Your task to perform on an android device: turn on the 24-hour format for clock Image 0: 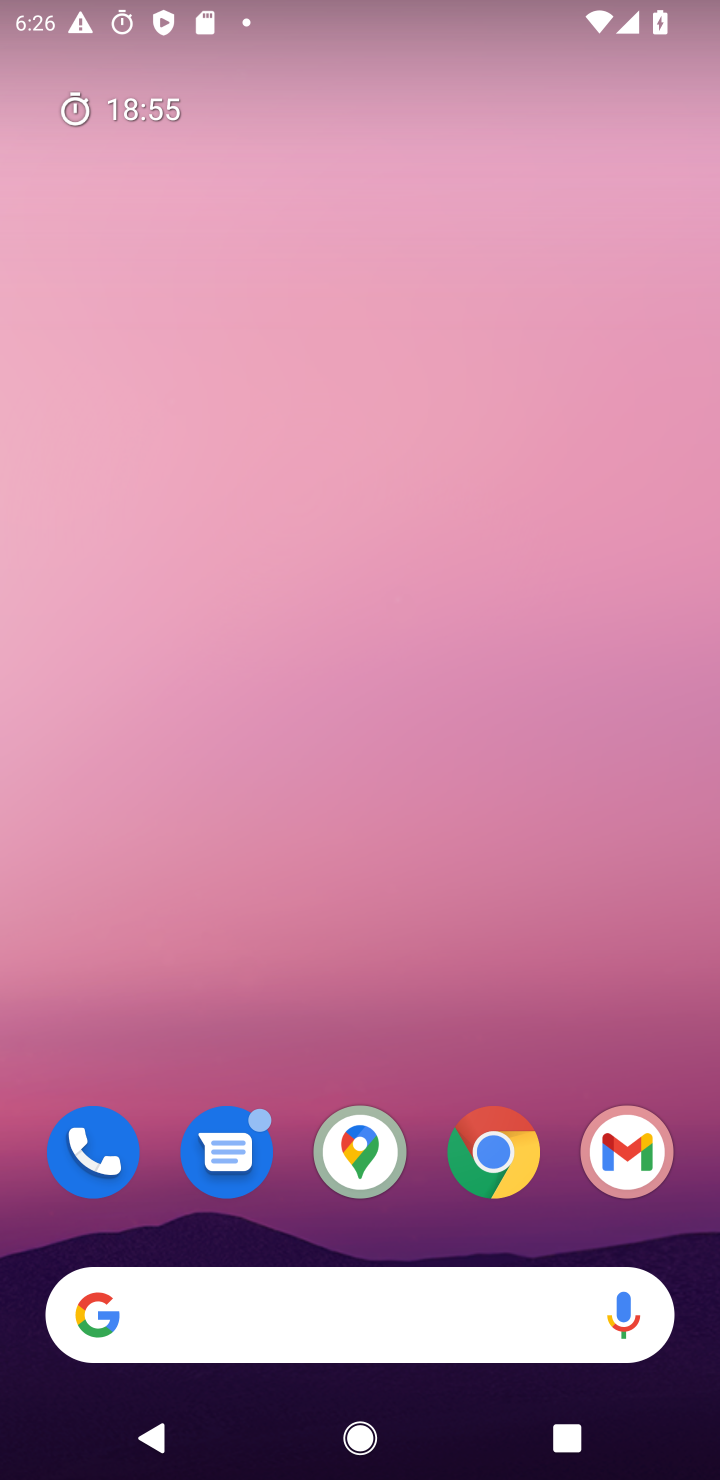
Step 0: drag from (334, 1007) to (362, 0)
Your task to perform on an android device: turn on the 24-hour format for clock Image 1: 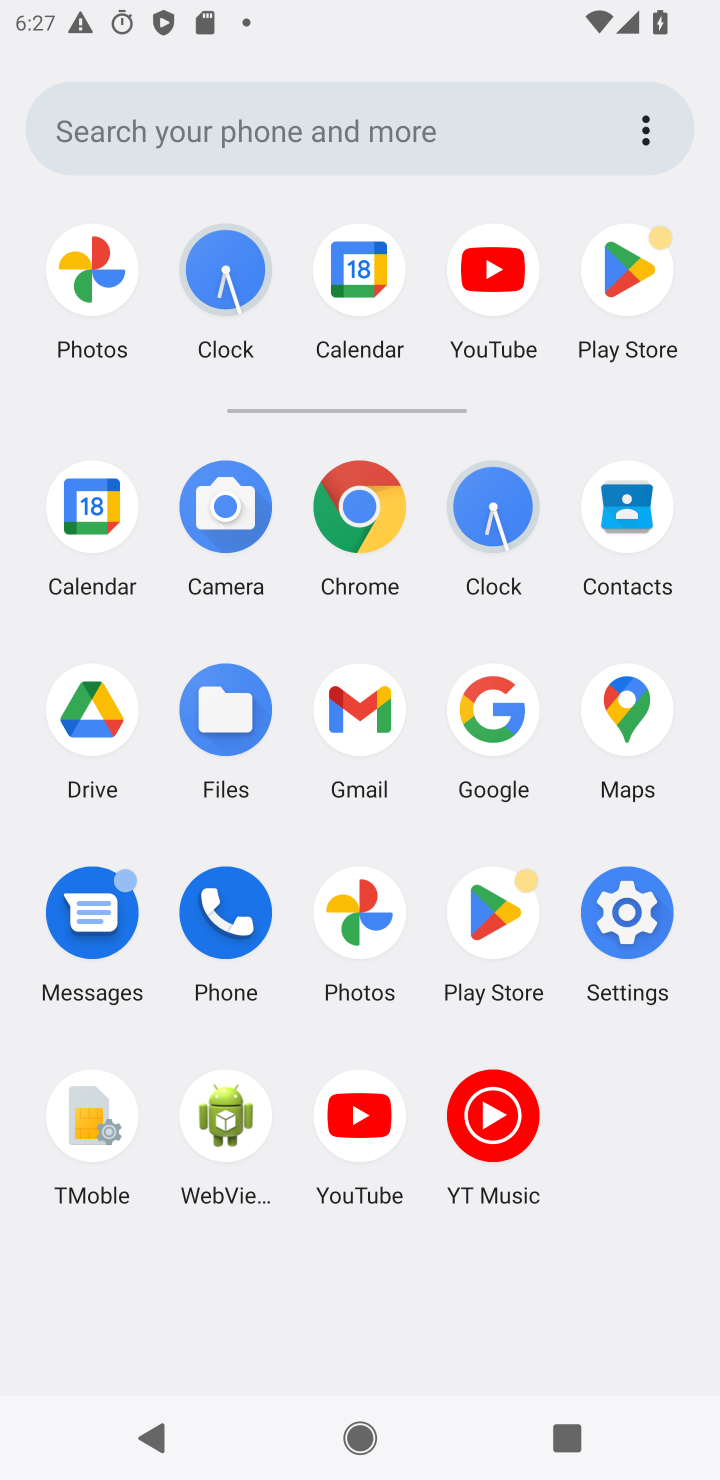
Step 1: click (499, 516)
Your task to perform on an android device: turn on the 24-hour format for clock Image 2: 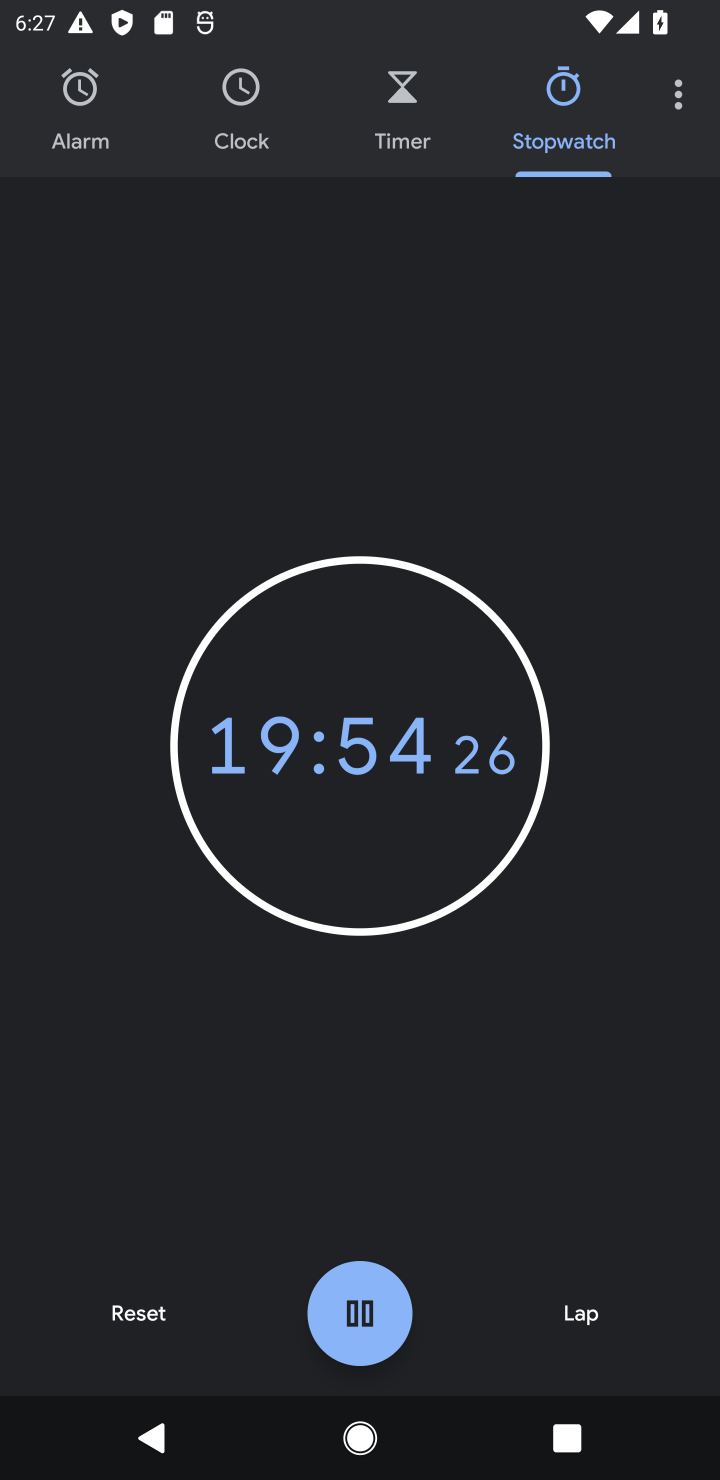
Step 2: click (679, 82)
Your task to perform on an android device: turn on the 24-hour format for clock Image 3: 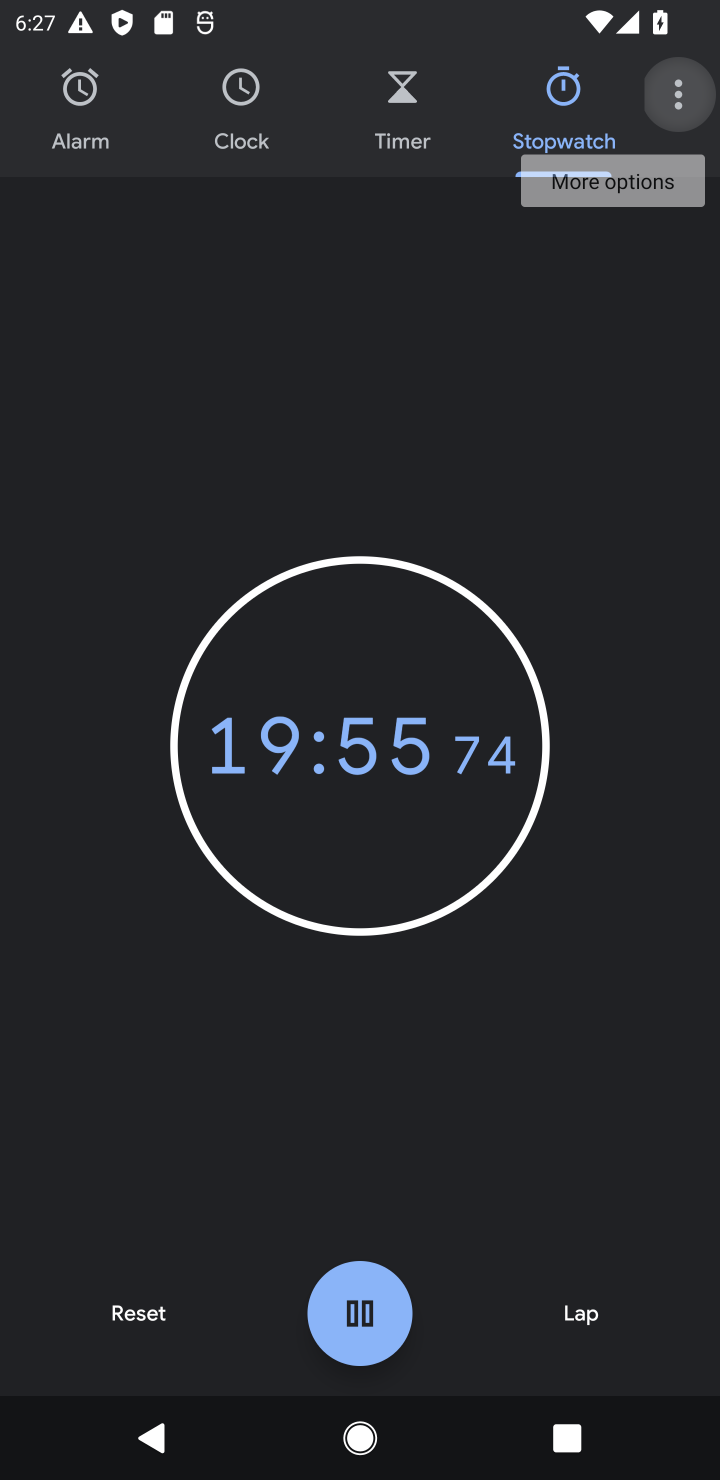
Step 3: click (679, 82)
Your task to perform on an android device: turn on the 24-hour format for clock Image 4: 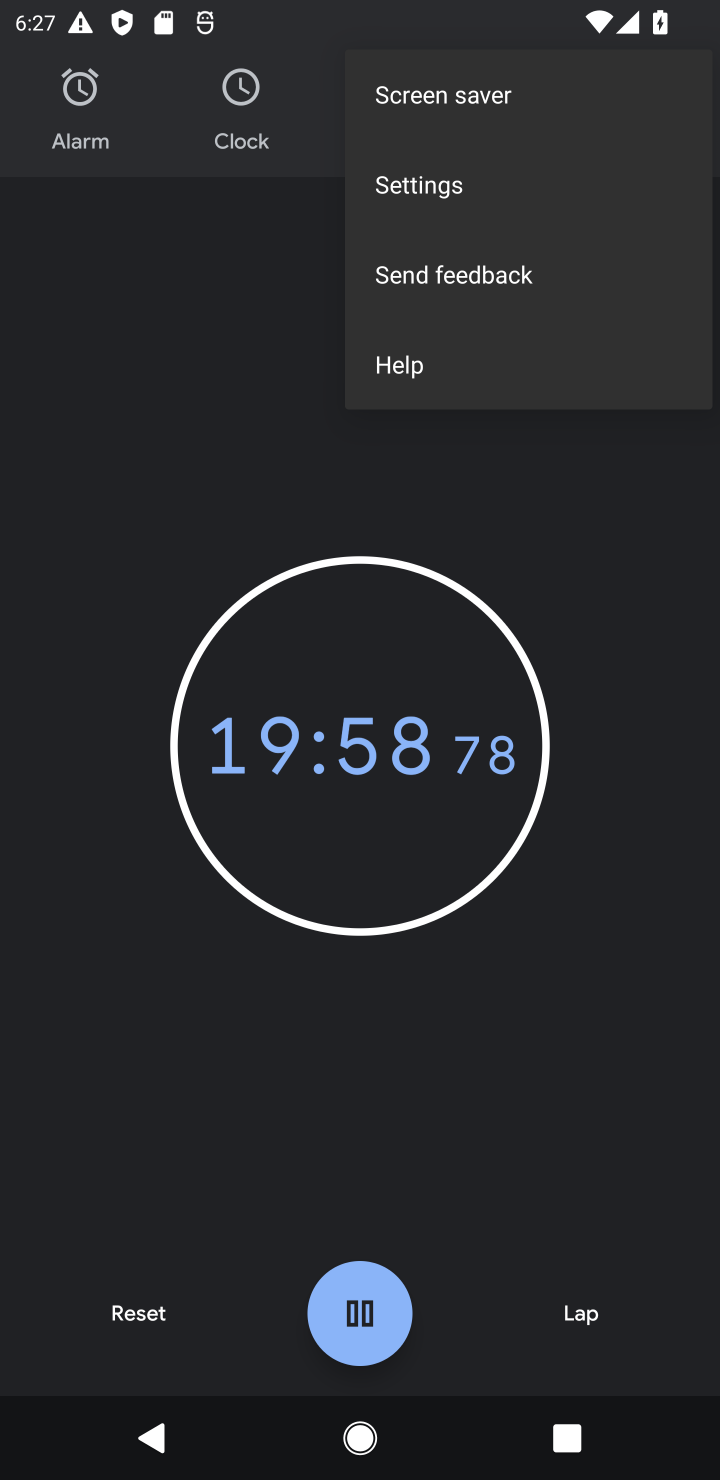
Step 4: click (451, 190)
Your task to perform on an android device: turn on the 24-hour format for clock Image 5: 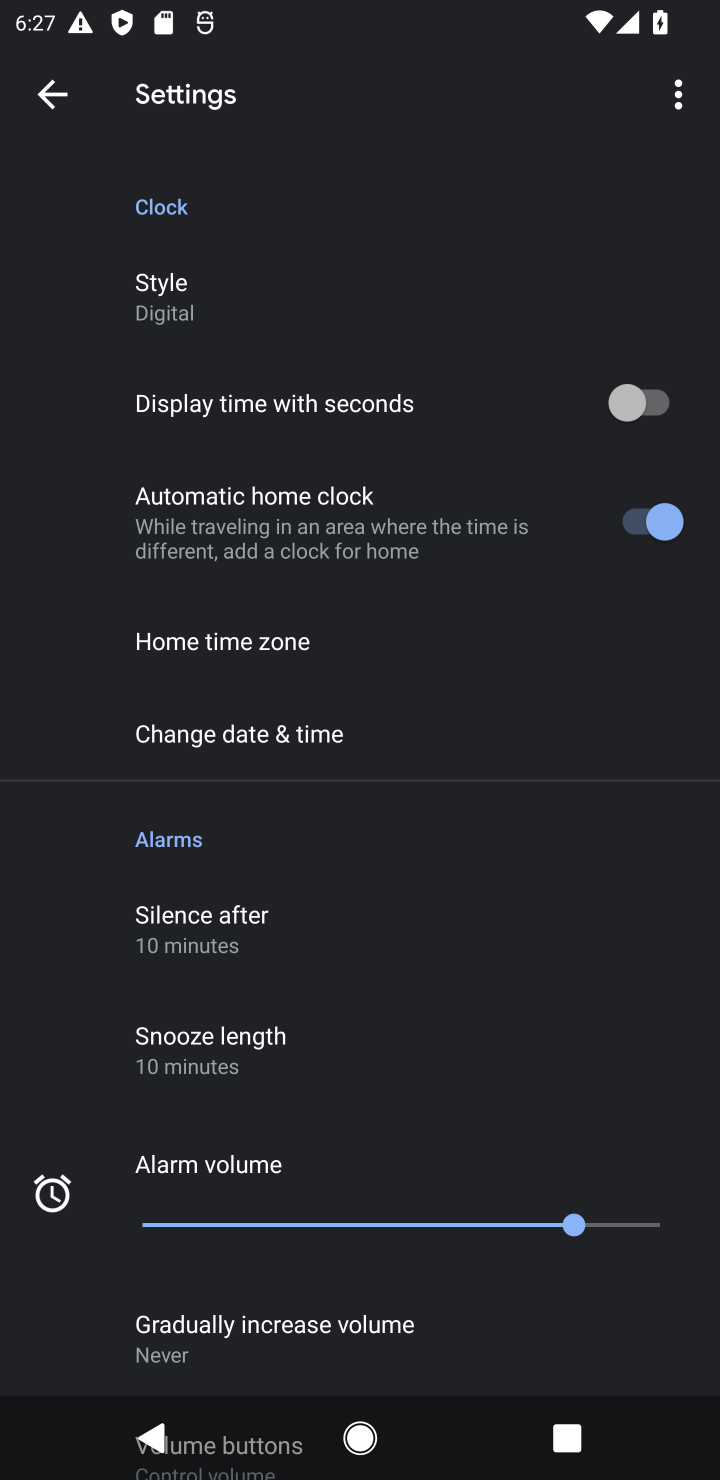
Step 5: drag from (402, 1043) to (416, 447)
Your task to perform on an android device: turn on the 24-hour format for clock Image 6: 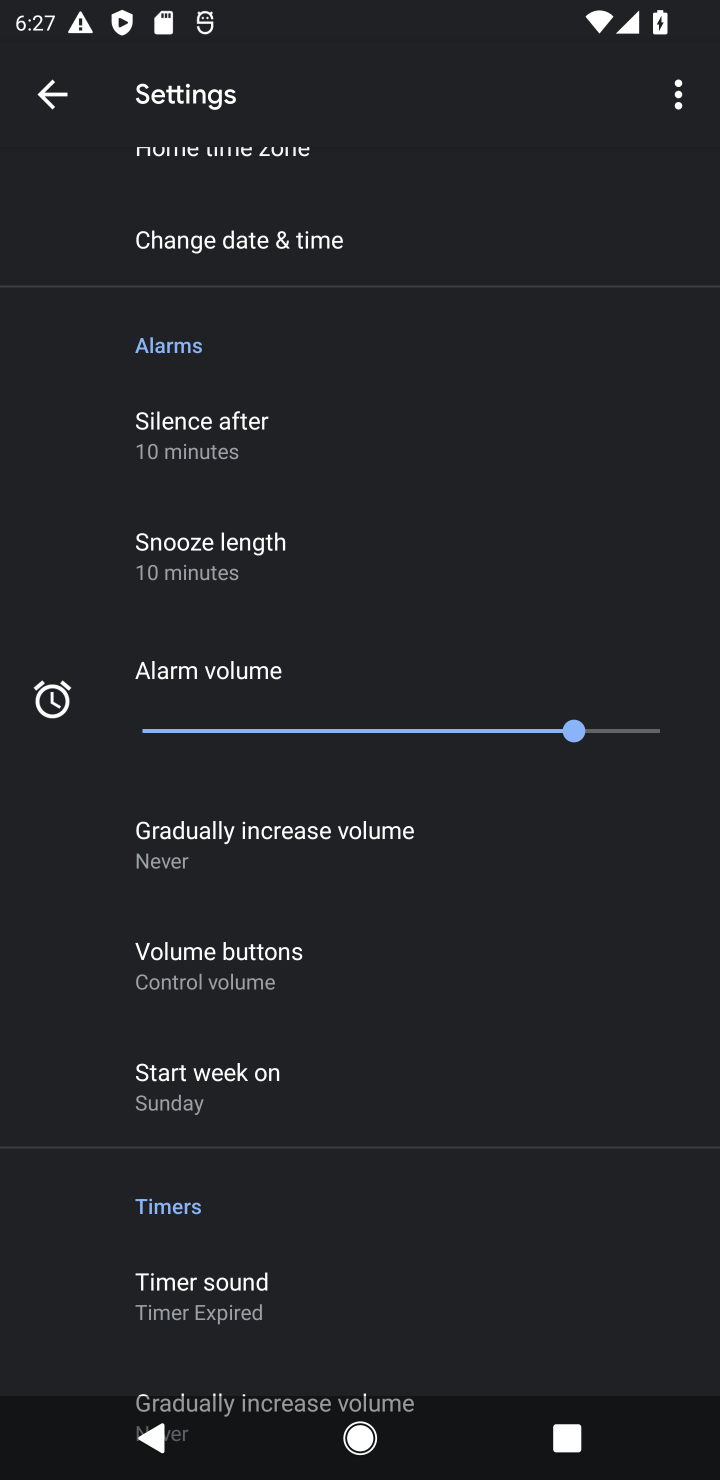
Step 6: click (297, 248)
Your task to perform on an android device: turn on the 24-hour format for clock Image 7: 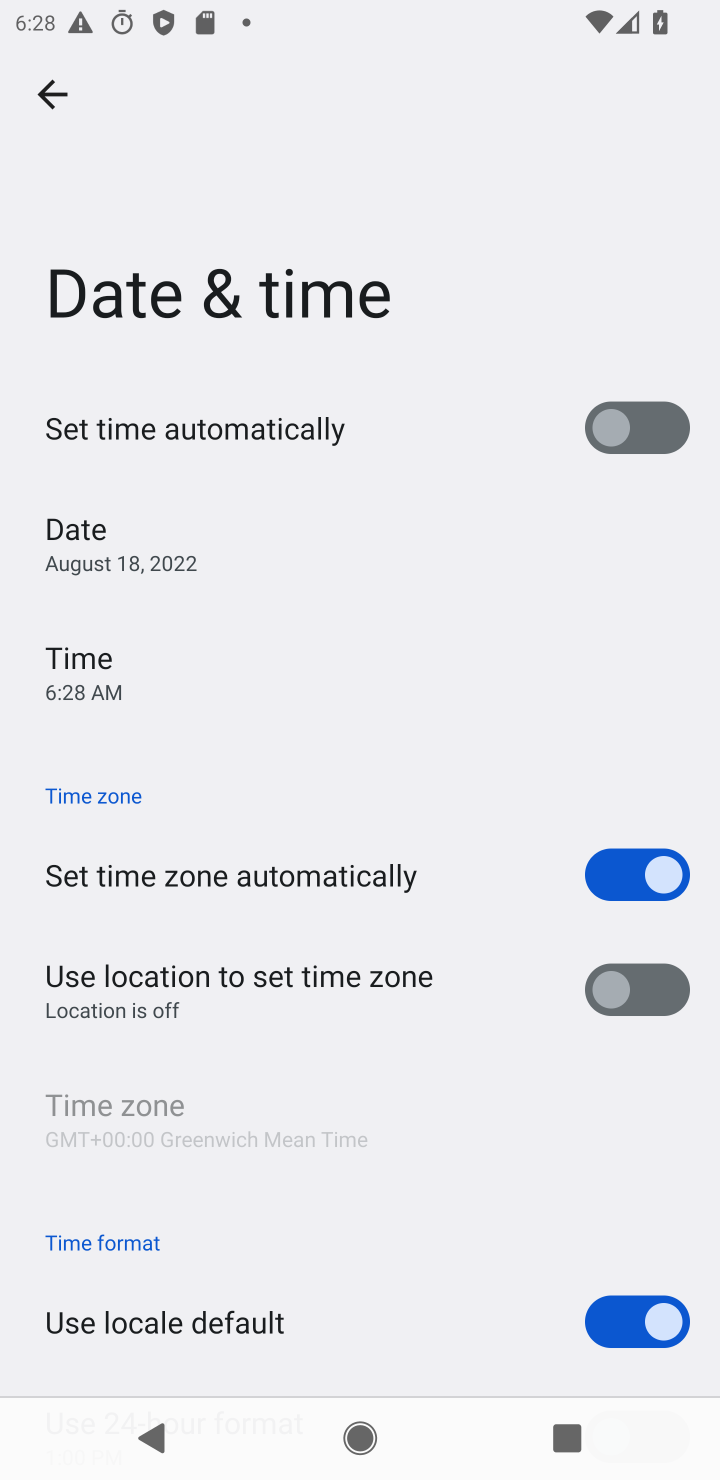
Step 7: drag from (332, 813) to (432, 233)
Your task to perform on an android device: turn on the 24-hour format for clock Image 8: 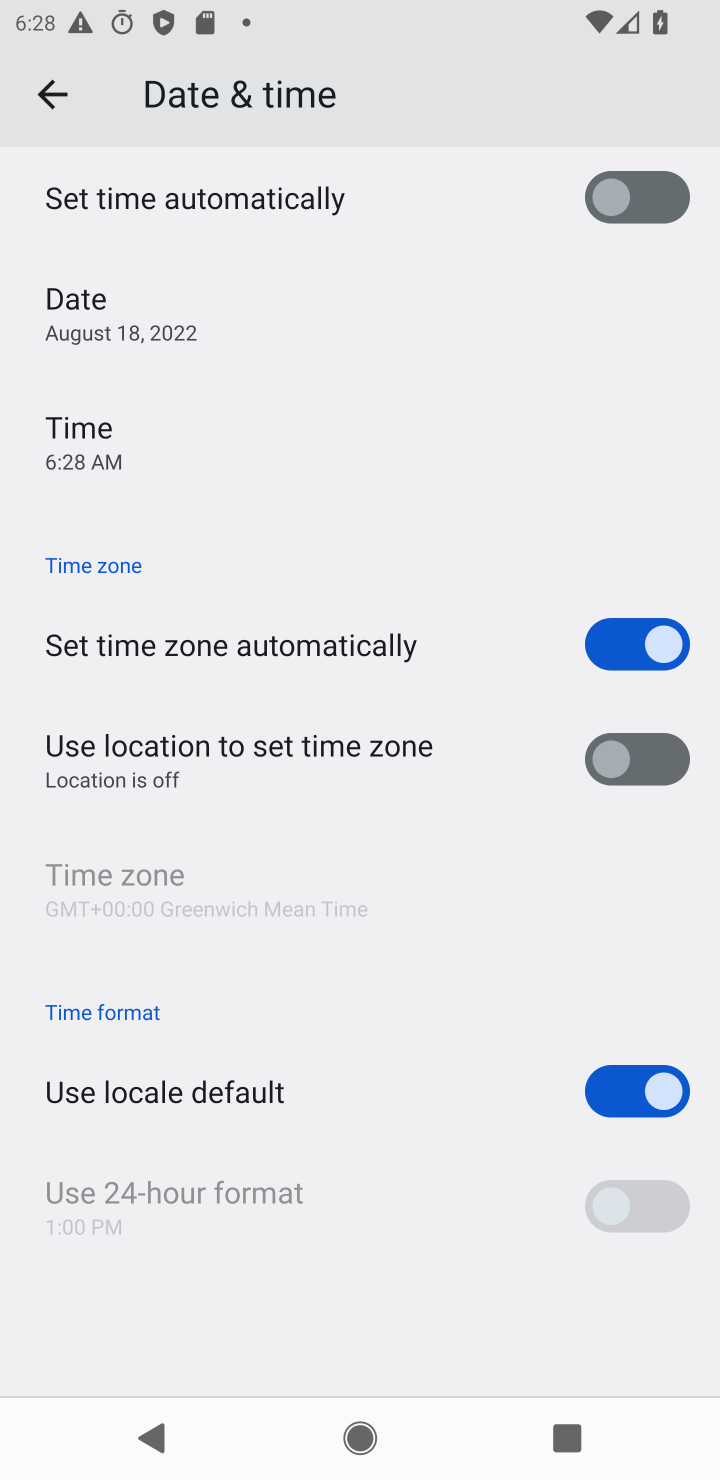
Step 8: drag from (297, 945) to (409, 239)
Your task to perform on an android device: turn on the 24-hour format for clock Image 9: 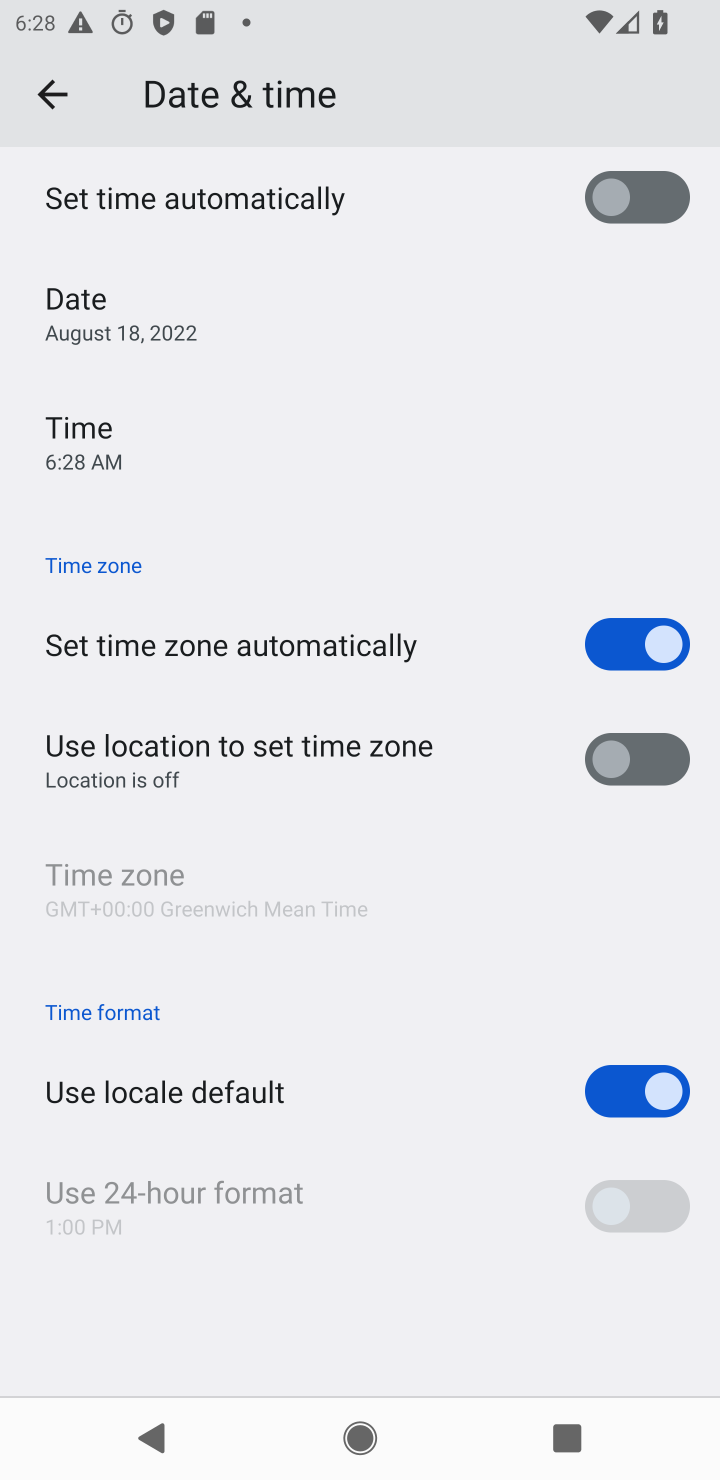
Step 9: click (613, 1074)
Your task to perform on an android device: turn on the 24-hour format for clock Image 10: 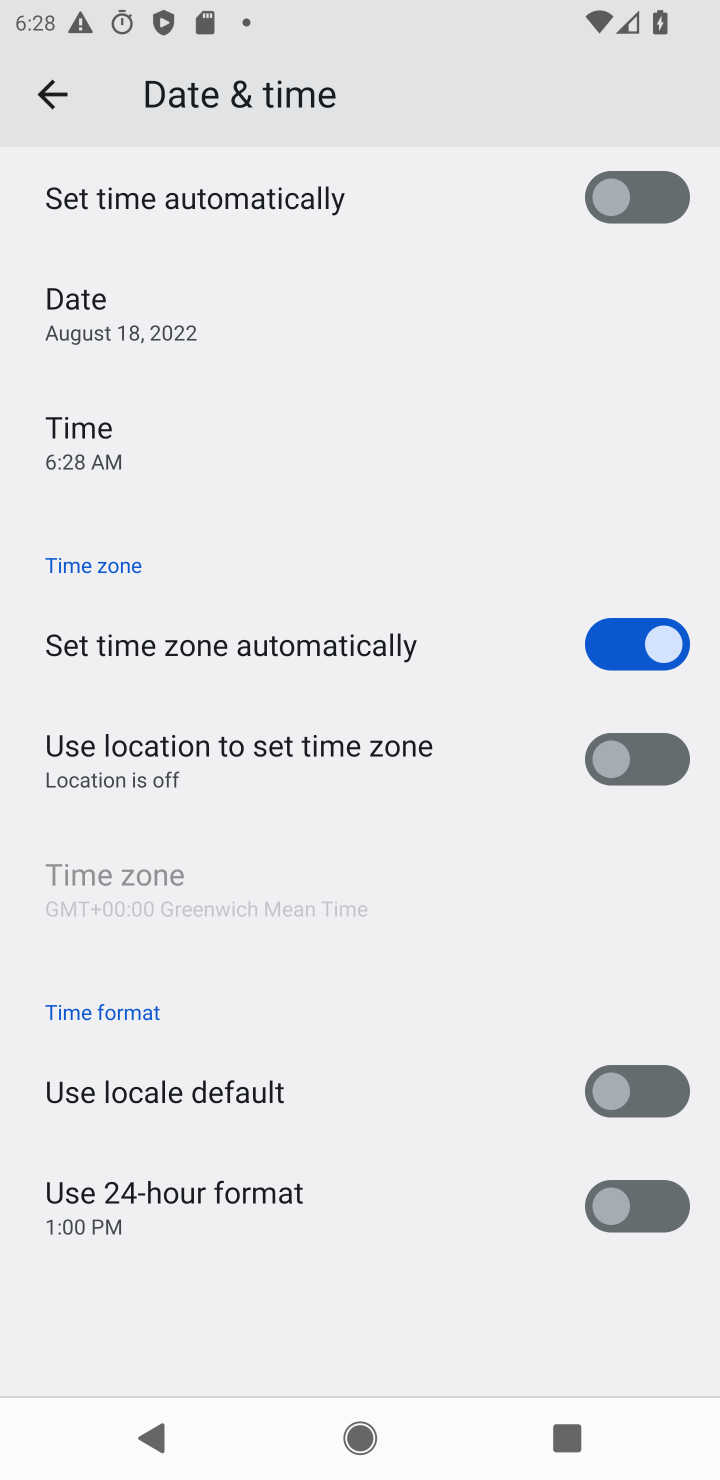
Step 10: click (645, 1211)
Your task to perform on an android device: turn on the 24-hour format for clock Image 11: 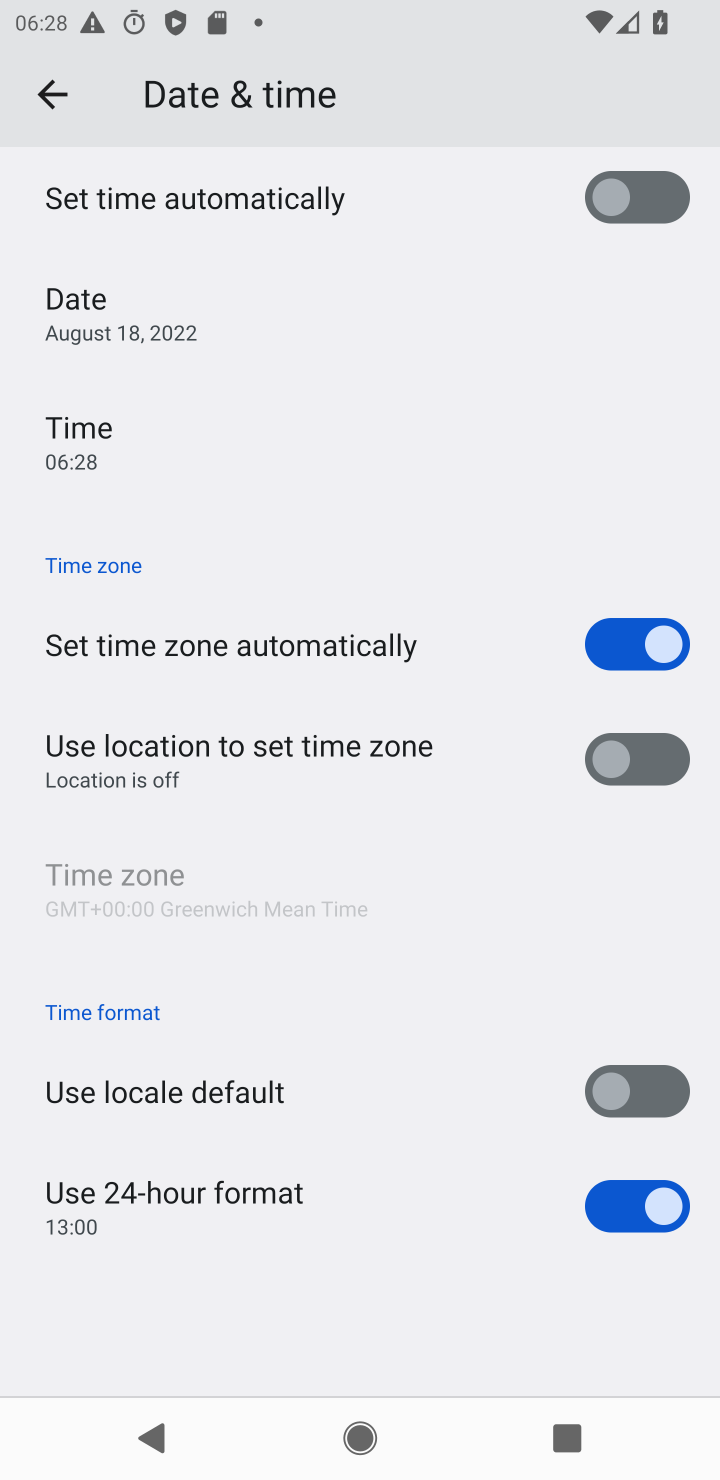
Step 11: task complete